Your task to perform on an android device: Go to Google maps Image 0: 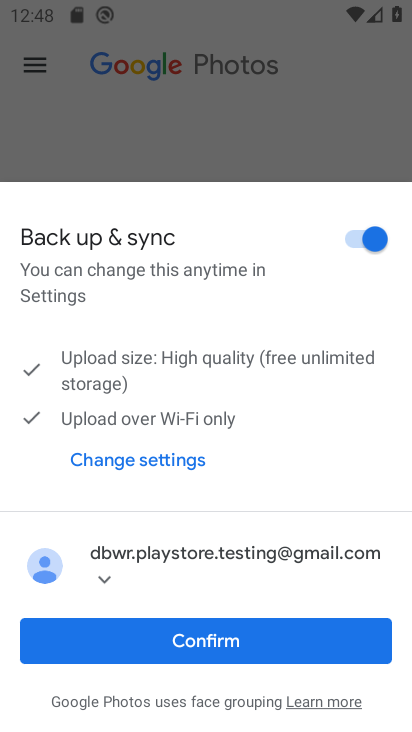
Step 0: press home button
Your task to perform on an android device: Go to Google maps Image 1: 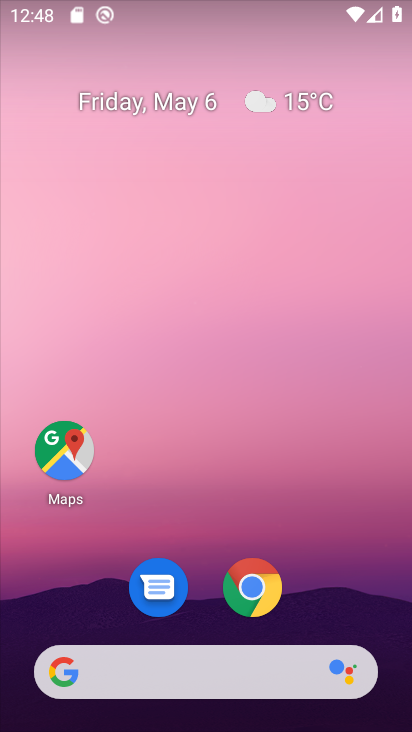
Step 1: click (60, 452)
Your task to perform on an android device: Go to Google maps Image 2: 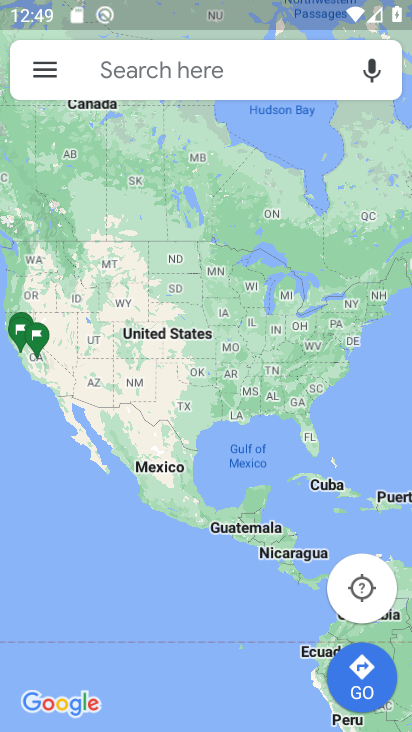
Step 2: task complete